Your task to perform on an android device: Is it going to rain today? Image 0: 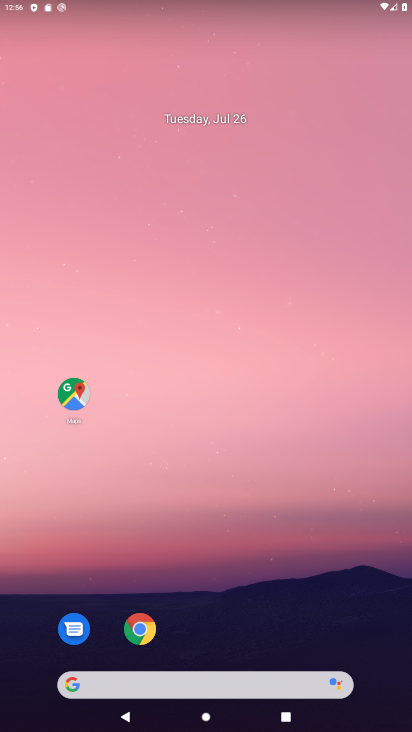
Step 0: drag from (64, 250) to (391, 216)
Your task to perform on an android device: Is it going to rain today? Image 1: 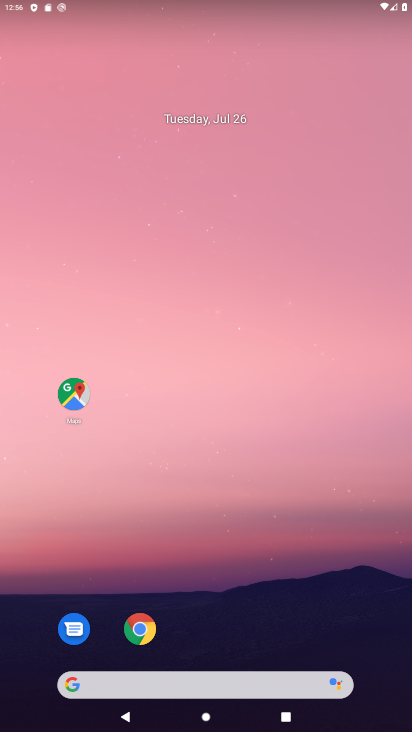
Step 1: task complete